Your task to perform on an android device: remove spam from my inbox in the gmail app Image 0: 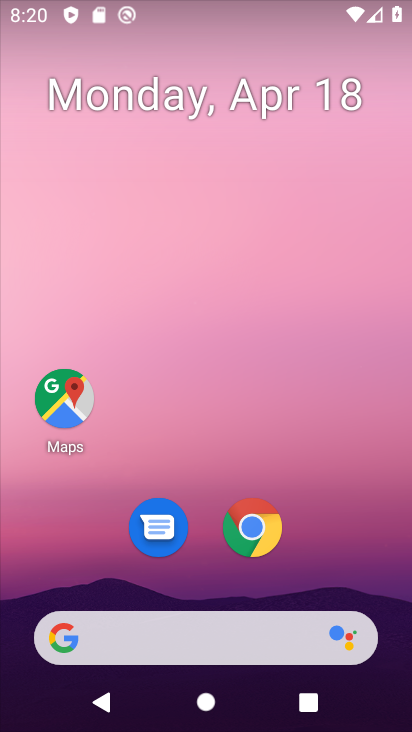
Step 0: drag from (215, 476) to (236, 15)
Your task to perform on an android device: remove spam from my inbox in the gmail app Image 1: 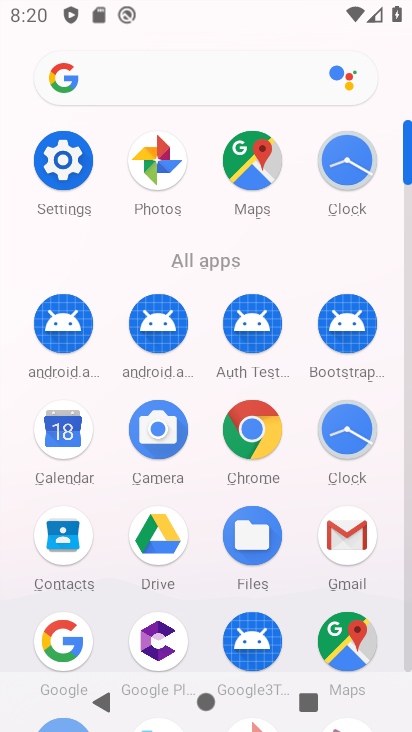
Step 1: click (335, 531)
Your task to perform on an android device: remove spam from my inbox in the gmail app Image 2: 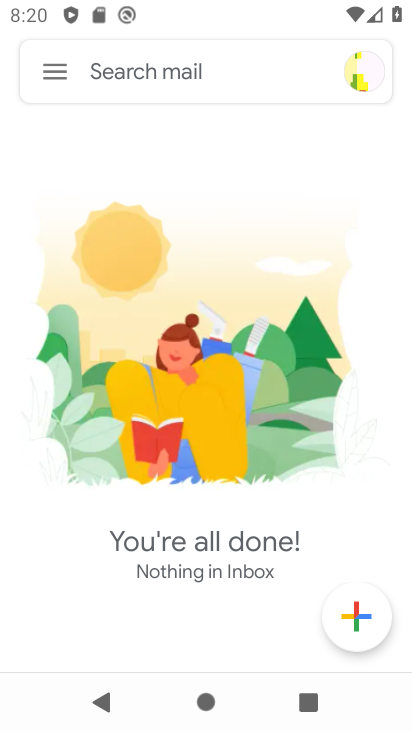
Step 2: click (60, 76)
Your task to perform on an android device: remove spam from my inbox in the gmail app Image 3: 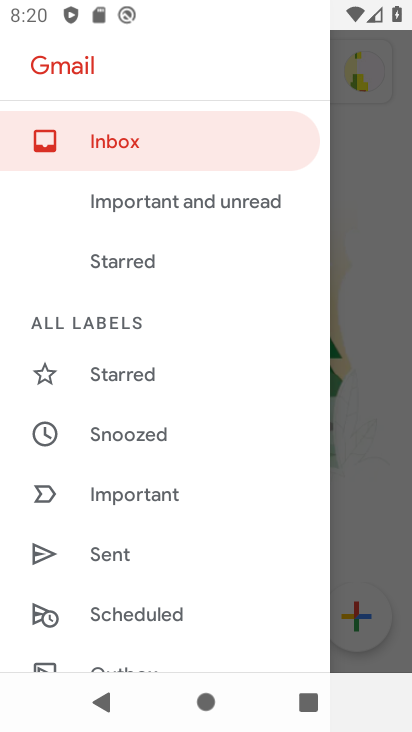
Step 3: drag from (144, 581) to (164, 246)
Your task to perform on an android device: remove spam from my inbox in the gmail app Image 4: 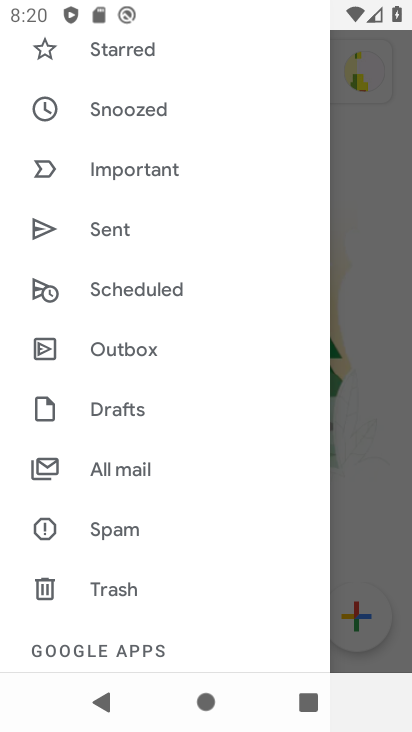
Step 4: click (128, 531)
Your task to perform on an android device: remove spam from my inbox in the gmail app Image 5: 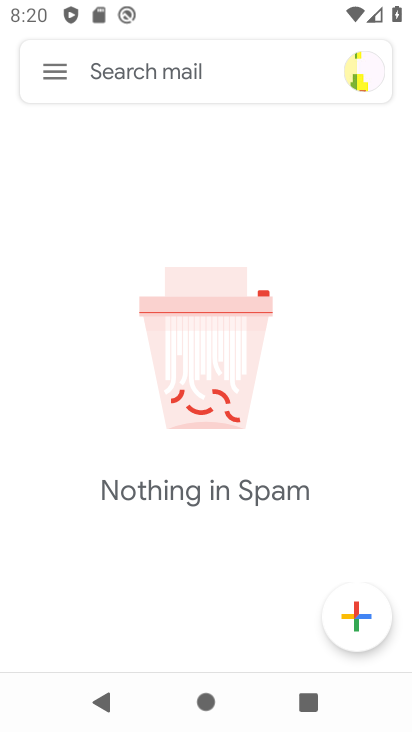
Step 5: task complete